Your task to perform on an android device: turn off wifi Image 0: 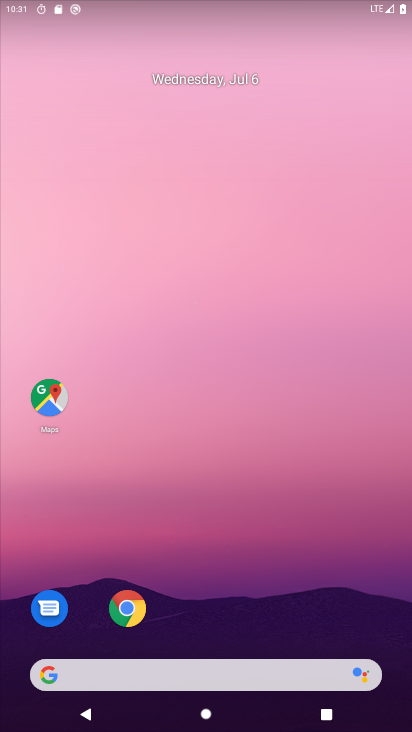
Step 0: drag from (214, 630) to (333, 95)
Your task to perform on an android device: turn off wifi Image 1: 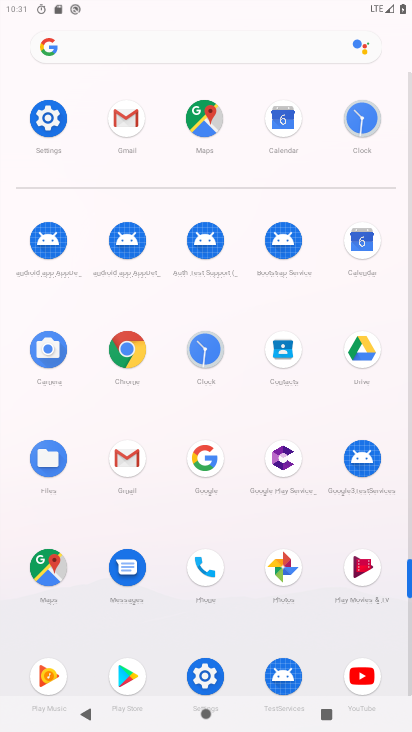
Step 1: click (57, 120)
Your task to perform on an android device: turn off wifi Image 2: 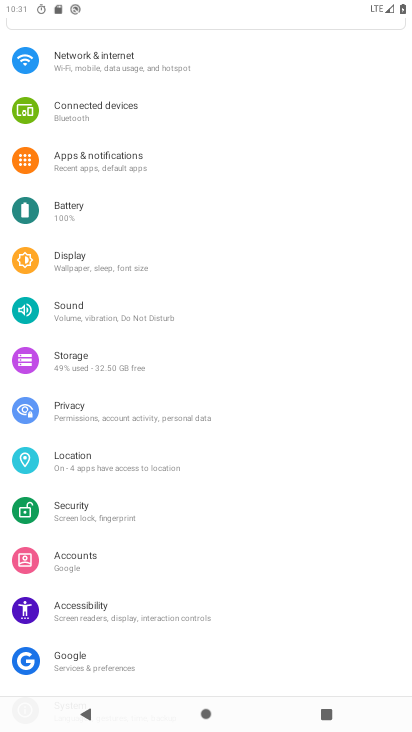
Step 2: drag from (124, 103) to (150, 290)
Your task to perform on an android device: turn off wifi Image 3: 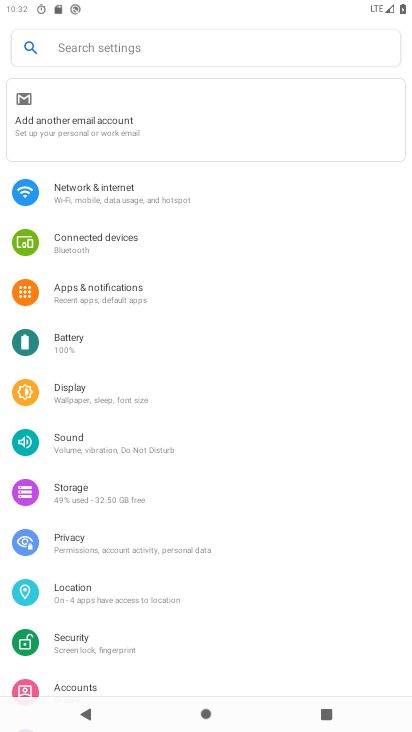
Step 3: click (153, 201)
Your task to perform on an android device: turn off wifi Image 4: 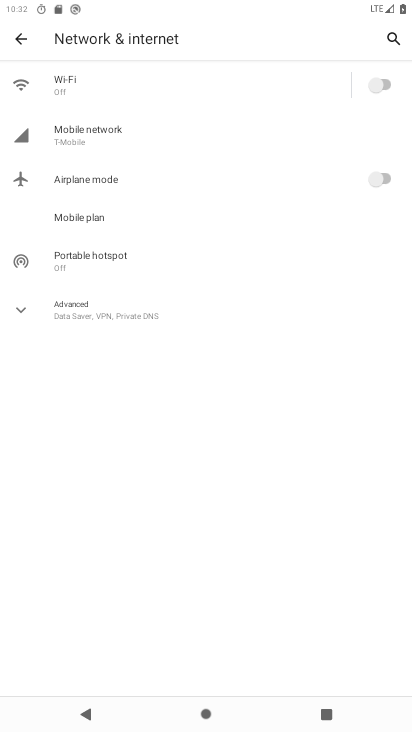
Step 4: task complete